Your task to perform on an android device: Search for the best-rated coffee table on Crate & Barrel Image 0: 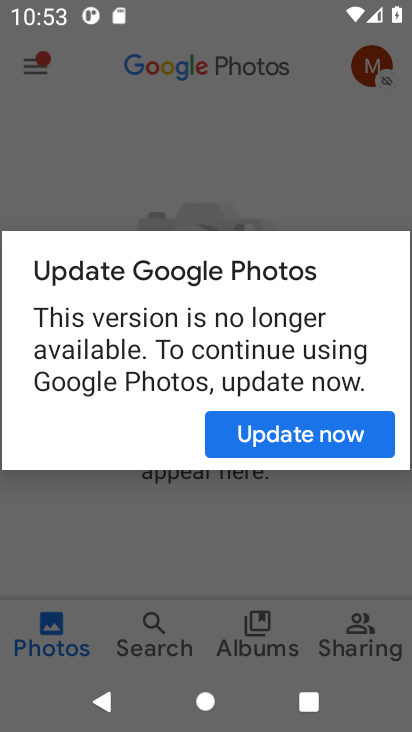
Step 0: press home button
Your task to perform on an android device: Search for the best-rated coffee table on Crate & Barrel Image 1: 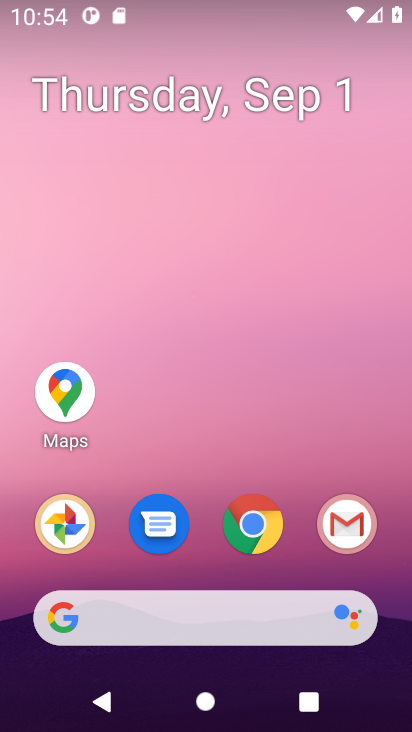
Step 1: click (259, 526)
Your task to perform on an android device: Search for the best-rated coffee table on Crate & Barrel Image 2: 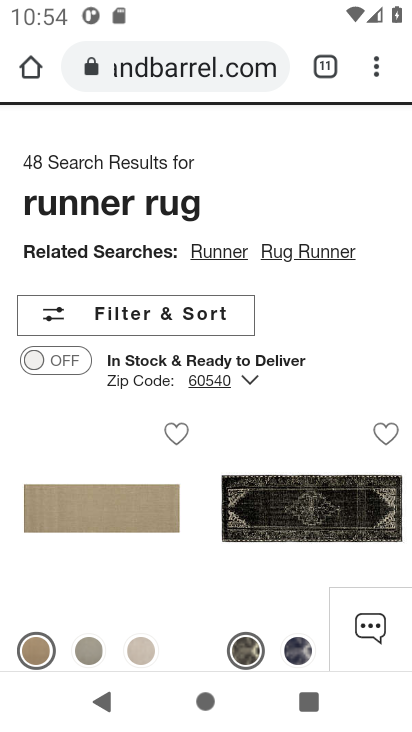
Step 2: drag from (348, 180) to (340, 418)
Your task to perform on an android device: Search for the best-rated coffee table on Crate & Barrel Image 3: 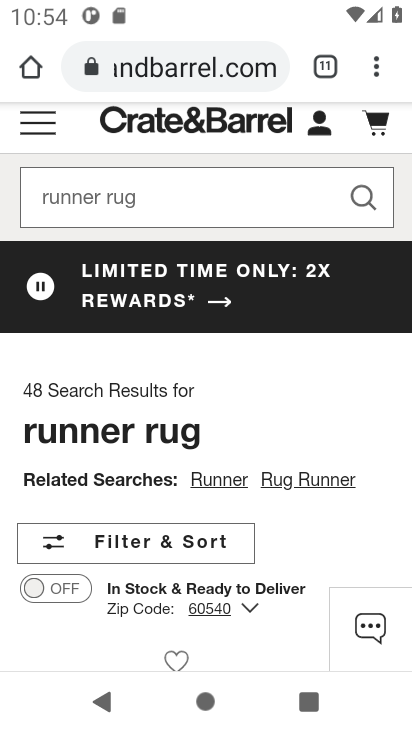
Step 3: click (214, 197)
Your task to perform on an android device: Search for the best-rated coffee table on Crate & Barrel Image 4: 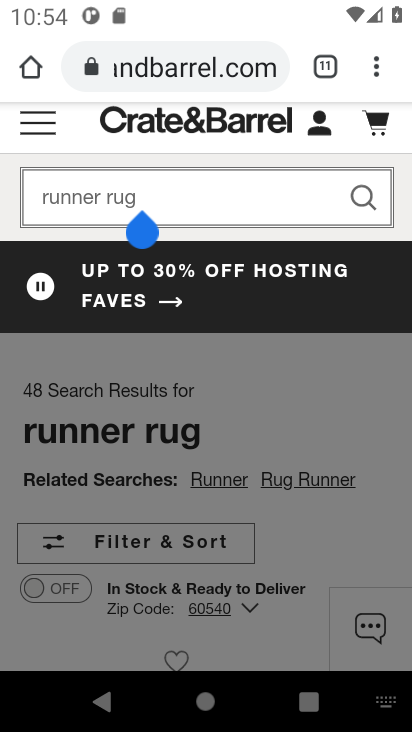
Step 4: click (363, 187)
Your task to perform on an android device: Search for the best-rated coffee table on Crate & Barrel Image 5: 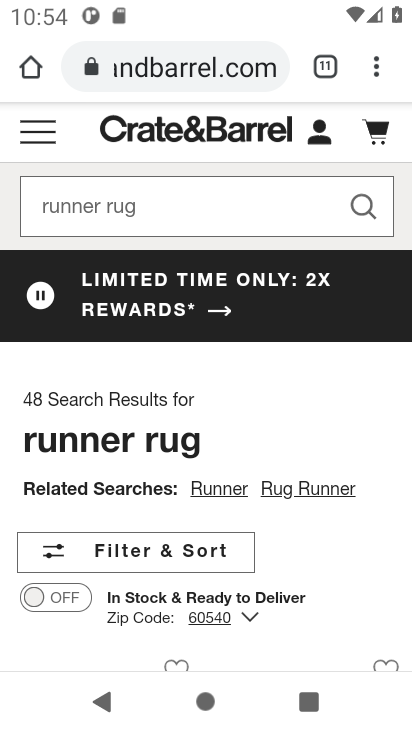
Step 5: click (168, 198)
Your task to perform on an android device: Search for the best-rated coffee table on Crate & Barrel Image 6: 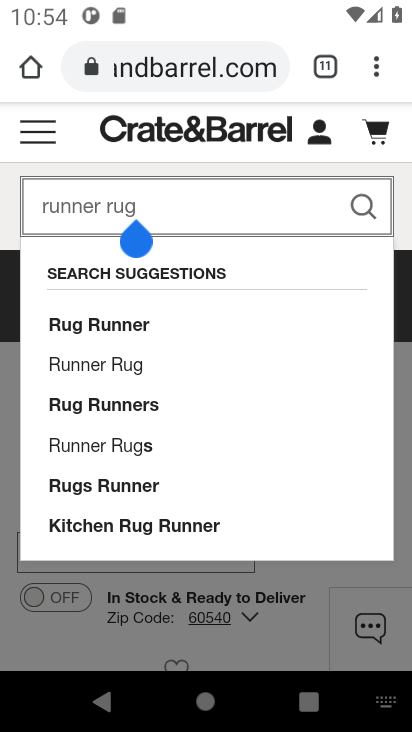
Step 6: press back button
Your task to perform on an android device: Search for the best-rated coffee table on Crate & Barrel Image 7: 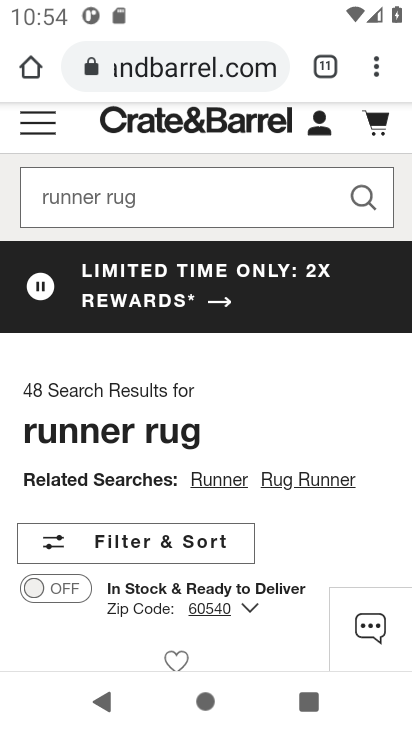
Step 7: press back button
Your task to perform on an android device: Search for the best-rated coffee table on Crate & Barrel Image 8: 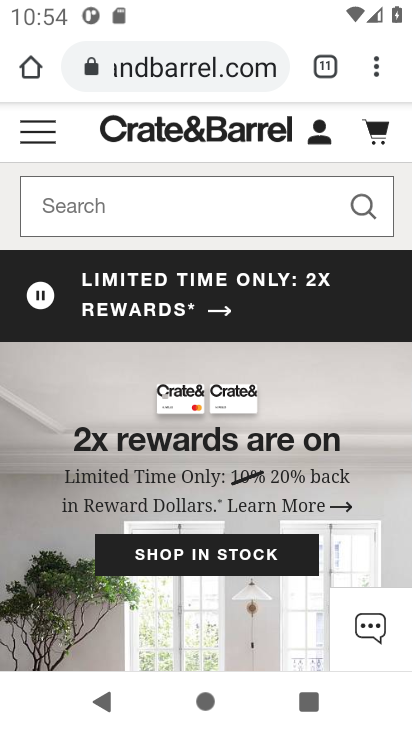
Step 8: click (256, 200)
Your task to perform on an android device: Search for the best-rated coffee table on Crate & Barrel Image 9: 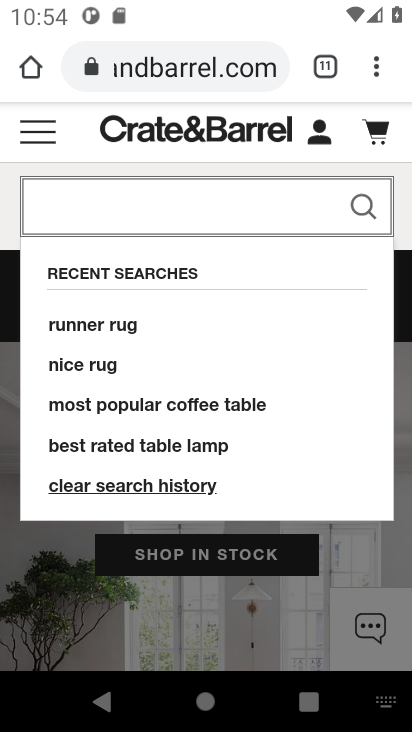
Step 9: press enter
Your task to perform on an android device: Search for the best-rated coffee table on Crate & Barrel Image 10: 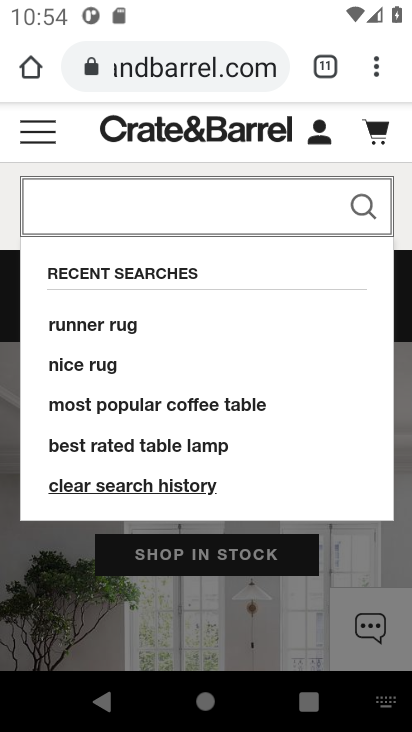
Step 10: type " best-rated coffee table"
Your task to perform on an android device: Search for the best-rated coffee table on Crate & Barrel Image 11: 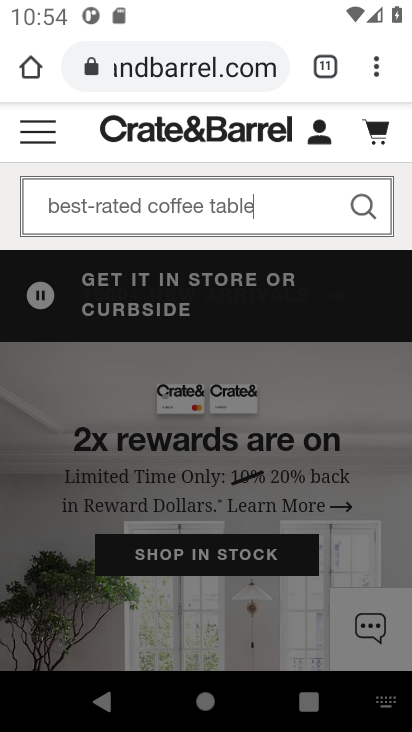
Step 11: click (369, 195)
Your task to perform on an android device: Search for the best-rated coffee table on Crate & Barrel Image 12: 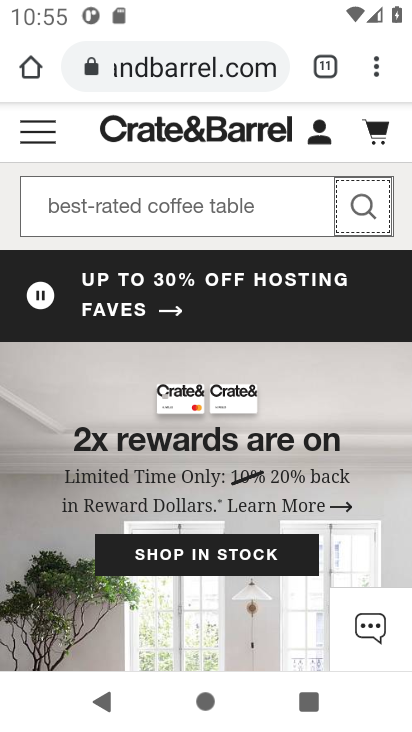
Step 12: click (364, 203)
Your task to perform on an android device: Search for the best-rated coffee table on Crate & Barrel Image 13: 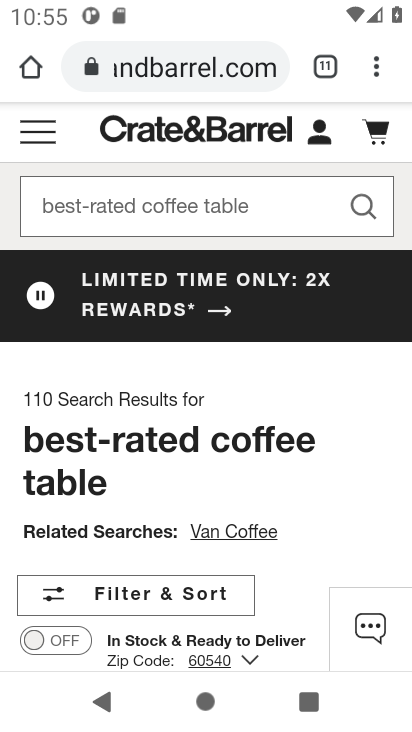
Step 13: task complete